Your task to perform on an android device: manage bookmarks in the chrome app Image 0: 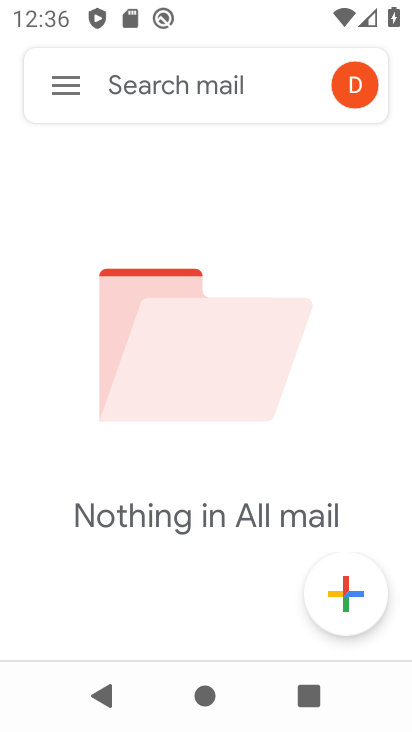
Step 0: press back button
Your task to perform on an android device: manage bookmarks in the chrome app Image 1: 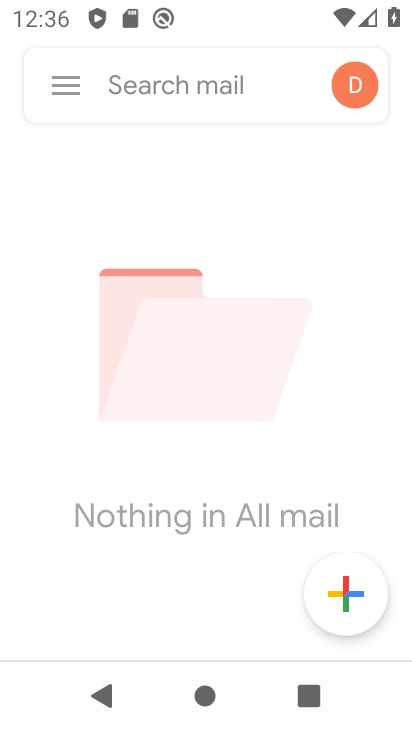
Step 1: press home button
Your task to perform on an android device: manage bookmarks in the chrome app Image 2: 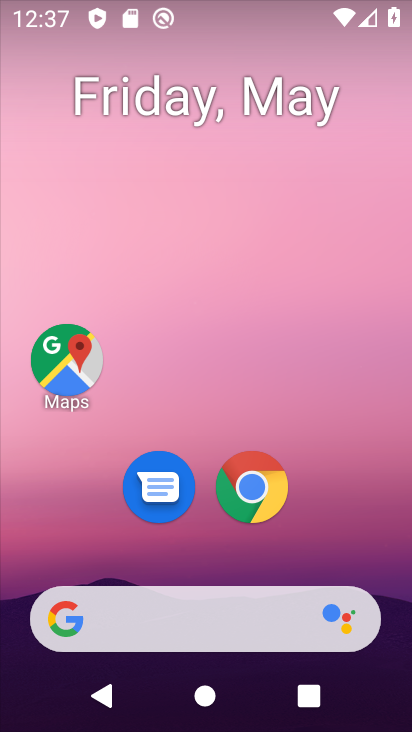
Step 2: click (256, 477)
Your task to perform on an android device: manage bookmarks in the chrome app Image 3: 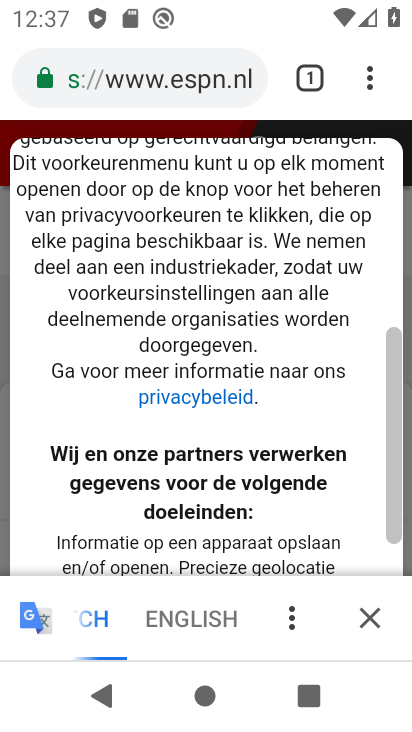
Step 3: task complete